Your task to perform on an android device: Search for seafood restaurants on Google Maps Image 0: 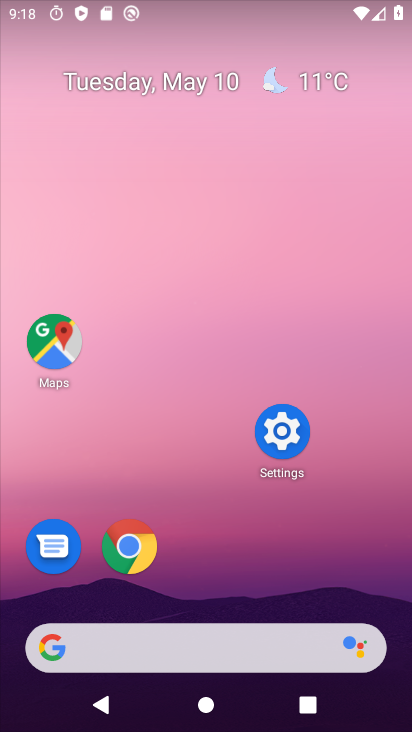
Step 0: click (46, 331)
Your task to perform on an android device: Search for seafood restaurants on Google Maps Image 1: 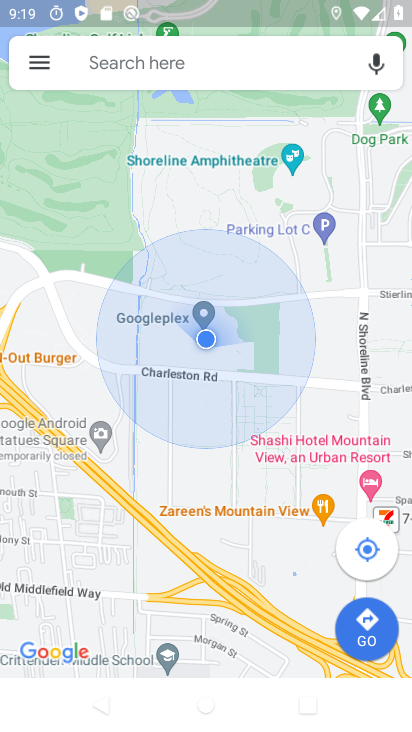
Step 1: click (180, 71)
Your task to perform on an android device: Search for seafood restaurants on Google Maps Image 2: 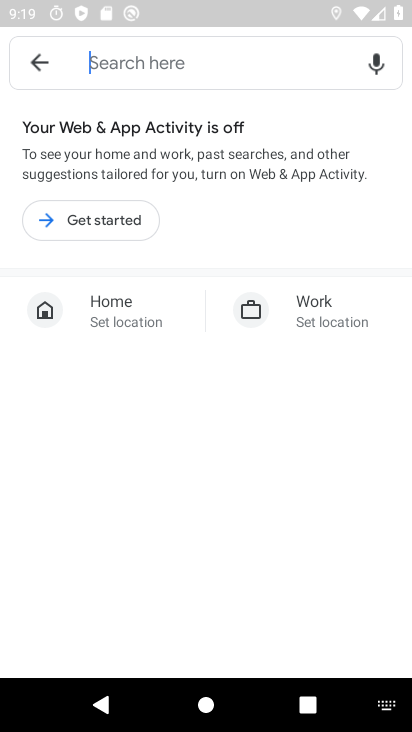
Step 2: type "seafood restra"
Your task to perform on an android device: Search for seafood restaurants on Google Maps Image 3: 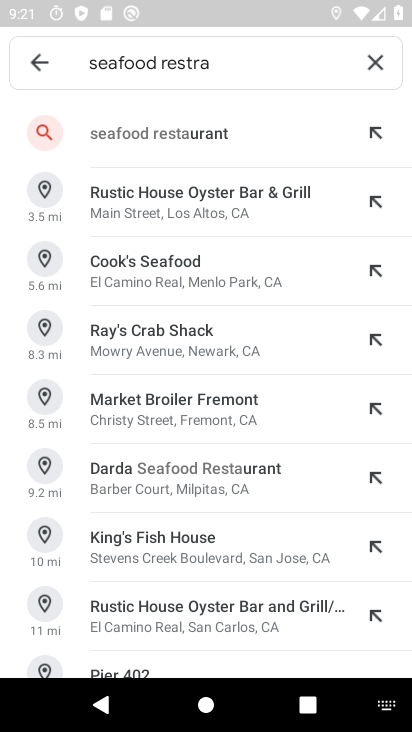
Step 3: click (121, 138)
Your task to perform on an android device: Search for seafood restaurants on Google Maps Image 4: 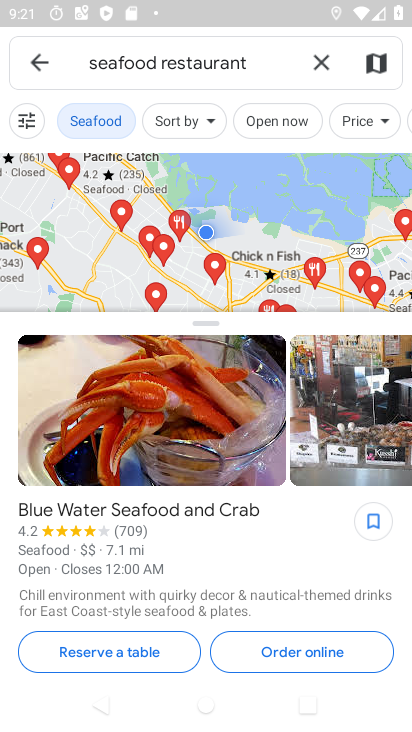
Step 4: task complete